Your task to perform on an android device: set the stopwatch Image 0: 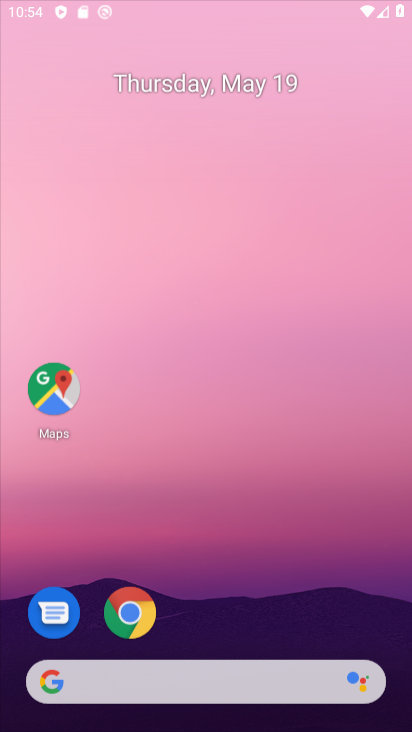
Step 0: press home button
Your task to perform on an android device: set the stopwatch Image 1: 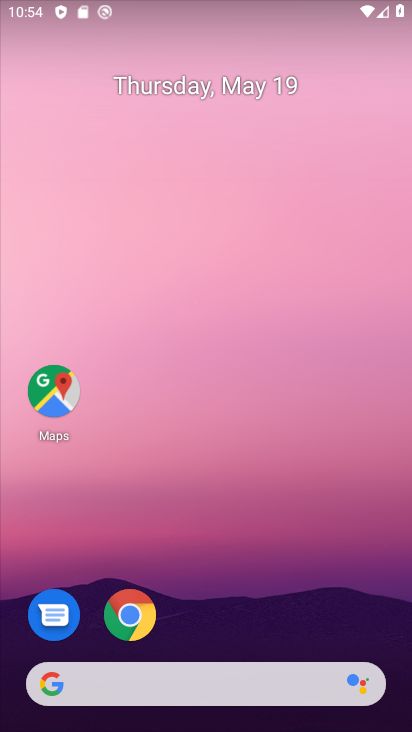
Step 1: drag from (311, 615) to (216, 47)
Your task to perform on an android device: set the stopwatch Image 2: 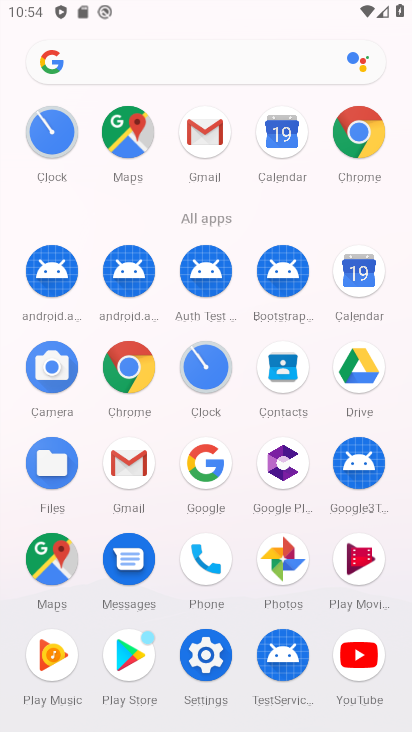
Step 2: click (208, 350)
Your task to perform on an android device: set the stopwatch Image 3: 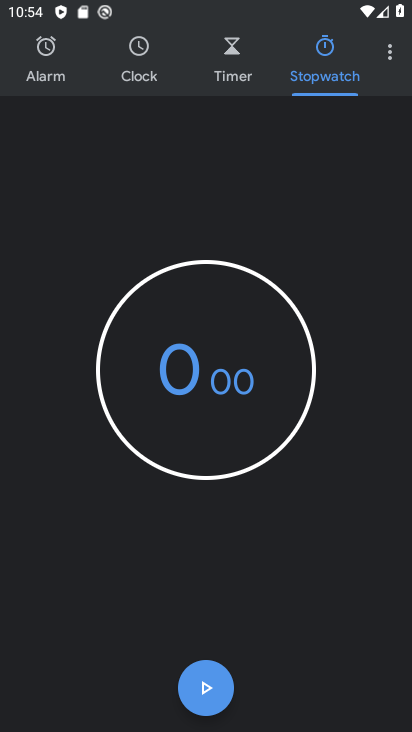
Step 3: click (217, 670)
Your task to perform on an android device: set the stopwatch Image 4: 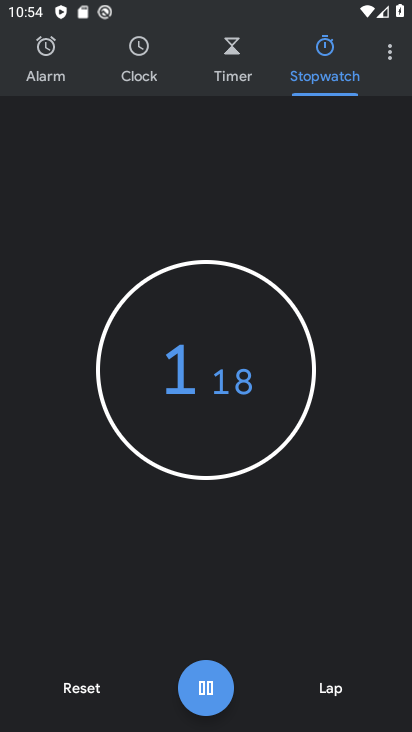
Step 4: task complete